Your task to perform on an android device: Clear the shopping cart on target. Add "usb-c" to the cart on target Image 0: 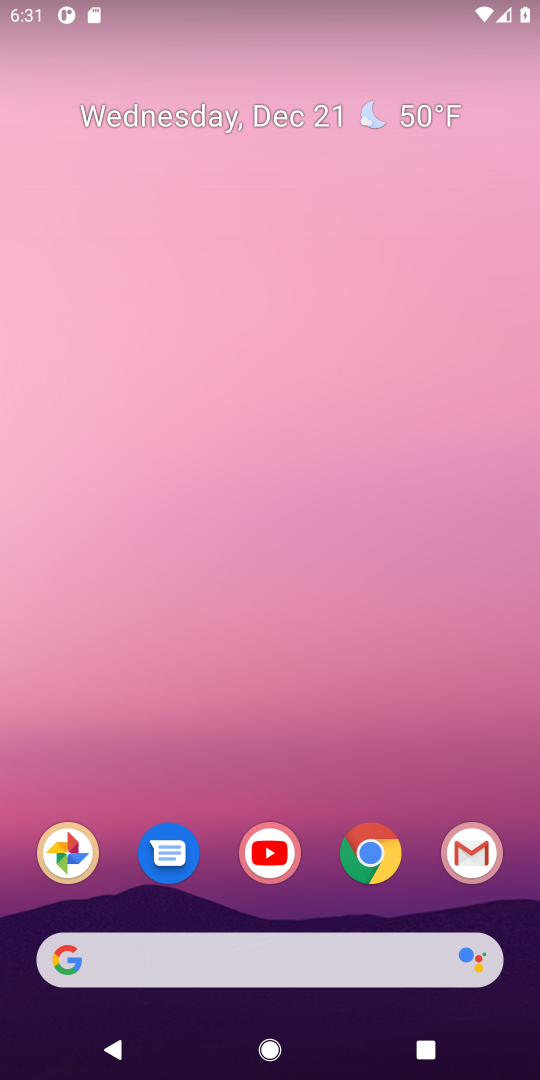
Step 0: click (369, 856)
Your task to perform on an android device: Clear the shopping cart on target. Add "usb-c" to the cart on target Image 1: 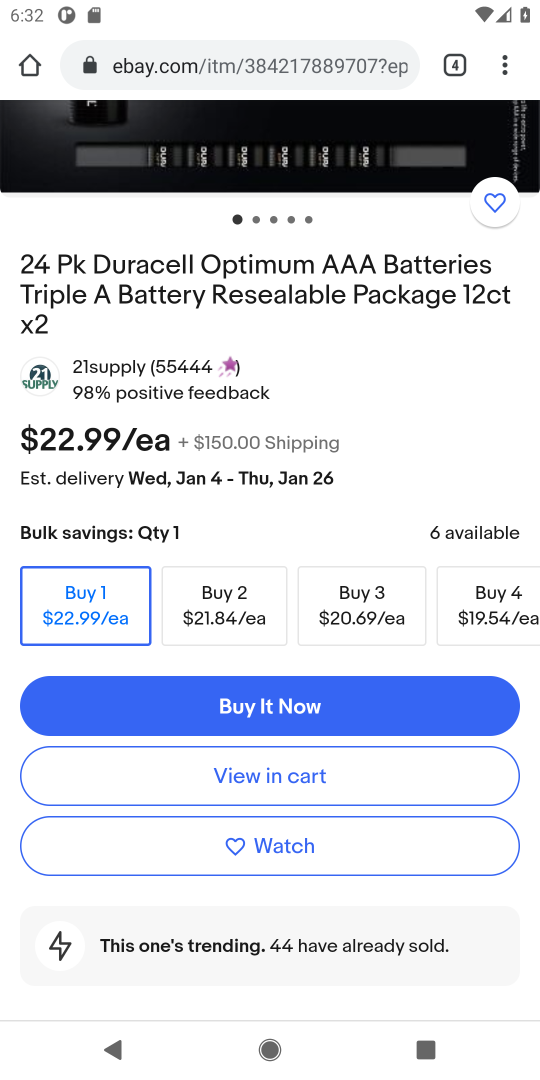
Step 1: click (457, 74)
Your task to perform on an android device: Clear the shopping cart on target. Add "usb-c" to the cart on target Image 2: 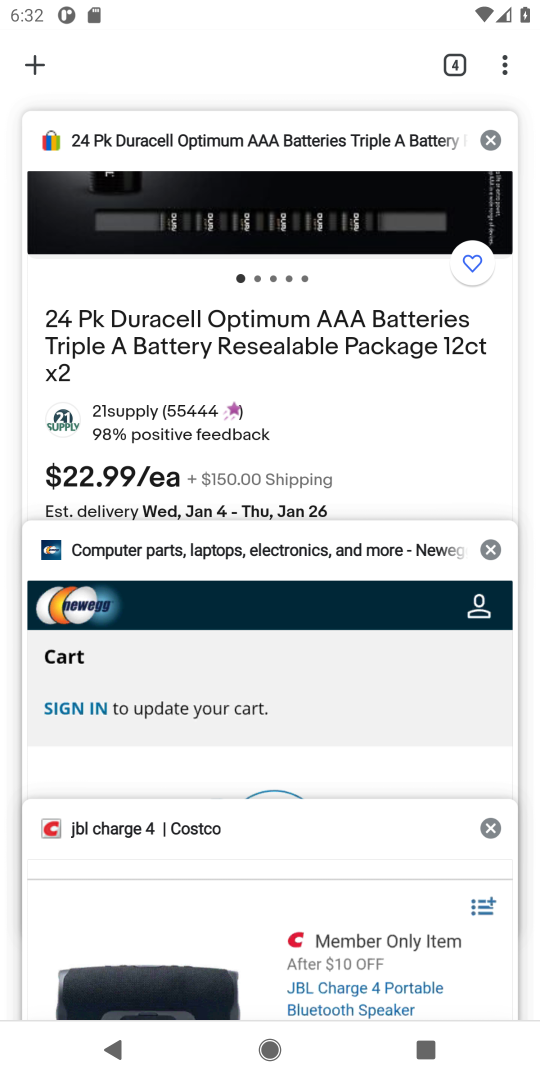
Step 2: click (30, 62)
Your task to perform on an android device: Clear the shopping cart on target. Add "usb-c" to the cart on target Image 3: 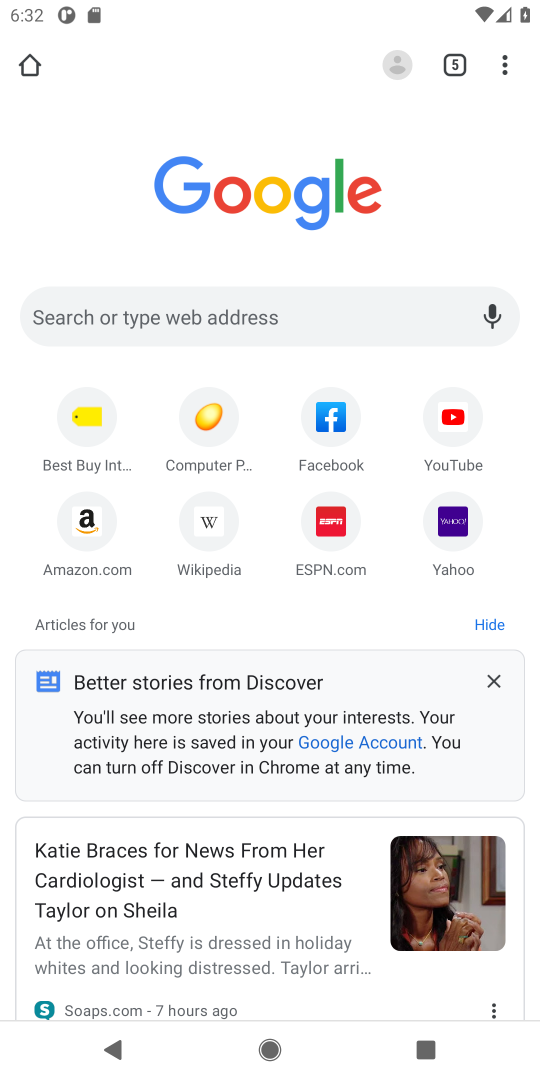
Step 3: click (125, 323)
Your task to perform on an android device: Clear the shopping cart on target. Add "usb-c" to the cart on target Image 4: 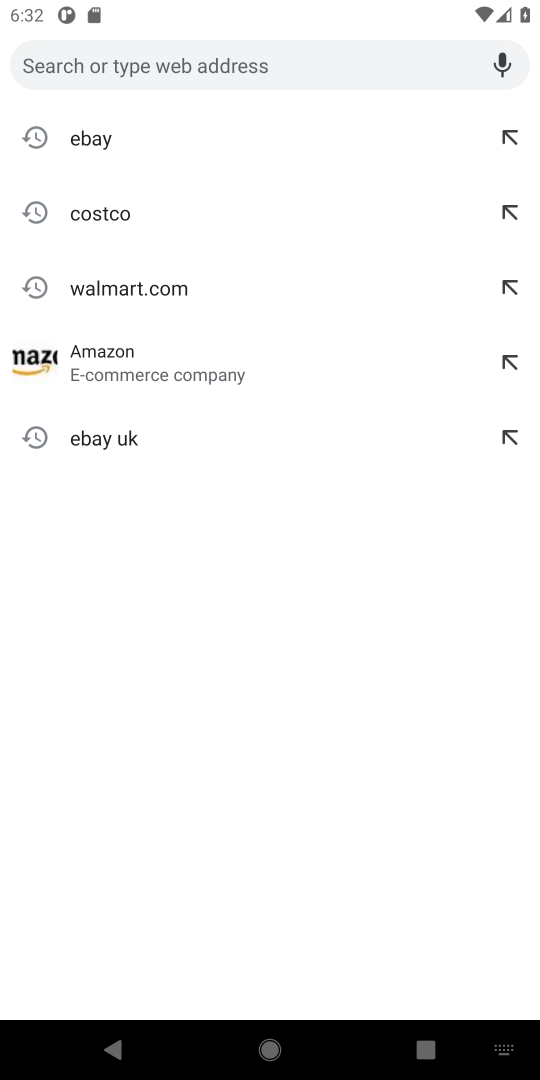
Step 4: type "target"
Your task to perform on an android device: Clear the shopping cart on target. Add "usb-c" to the cart on target Image 5: 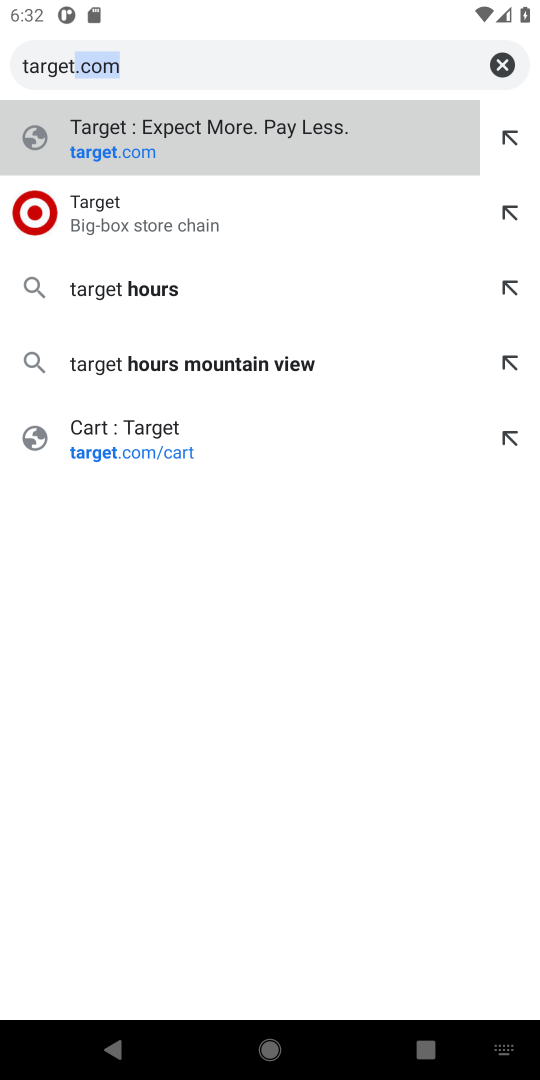
Step 5: click (85, 133)
Your task to perform on an android device: Clear the shopping cart on target. Add "usb-c" to the cart on target Image 6: 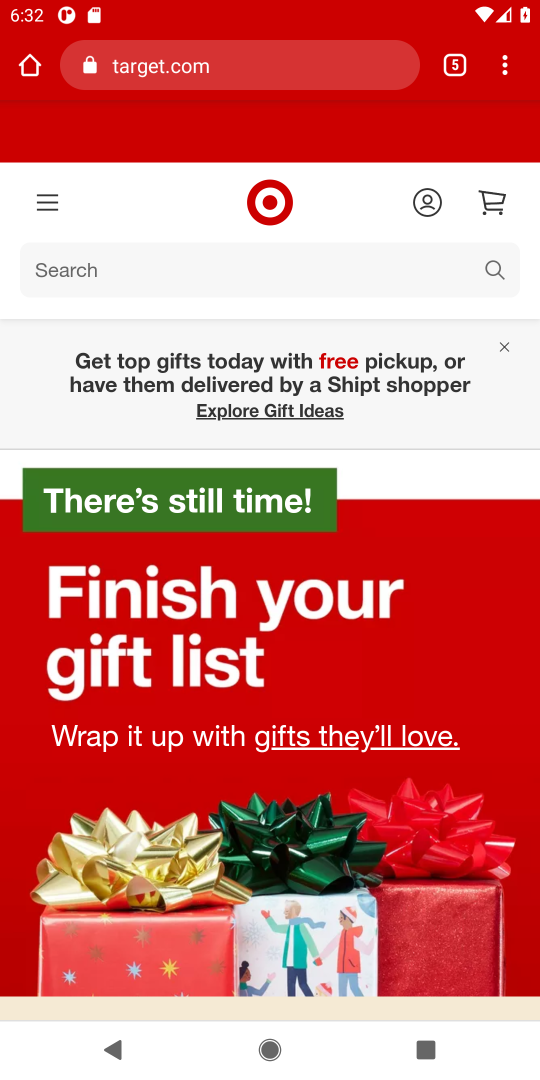
Step 6: click (90, 261)
Your task to perform on an android device: Clear the shopping cart on target. Add "usb-c" to the cart on target Image 7: 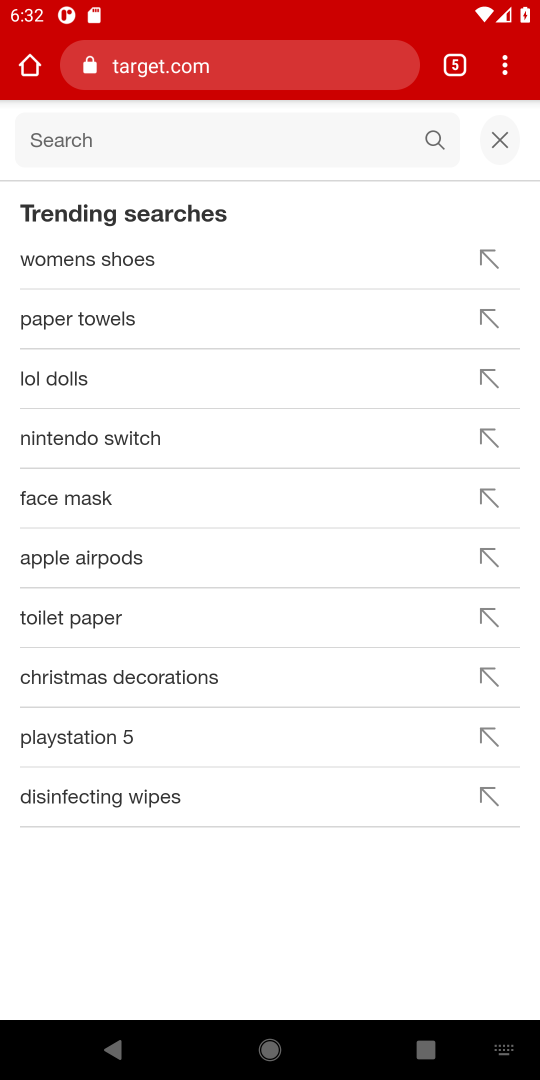
Step 7: type "usb-c"
Your task to perform on an android device: Clear the shopping cart on target. Add "usb-c" to the cart on target Image 8: 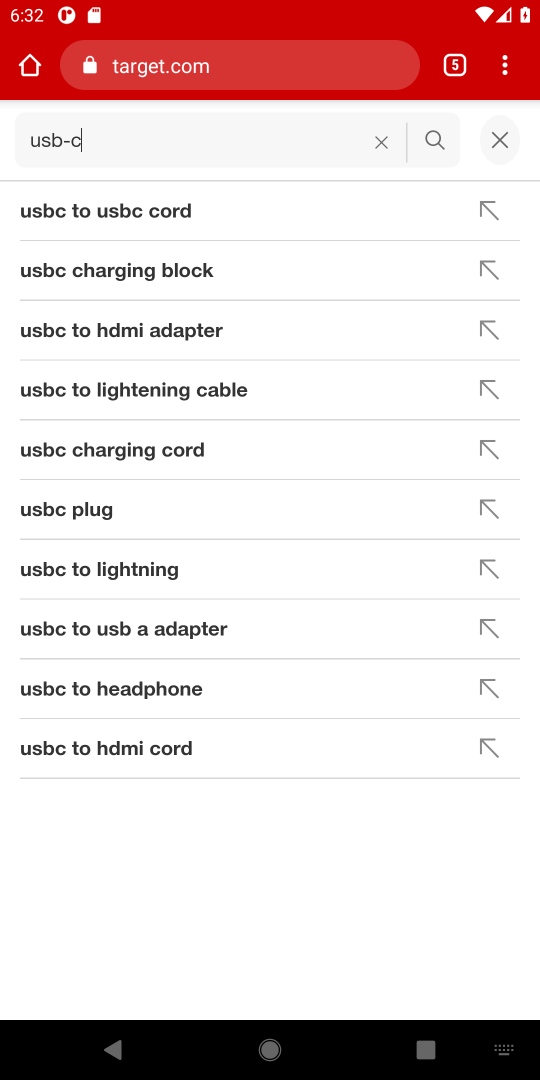
Step 8: click (436, 140)
Your task to perform on an android device: Clear the shopping cart on target. Add "usb-c" to the cart on target Image 9: 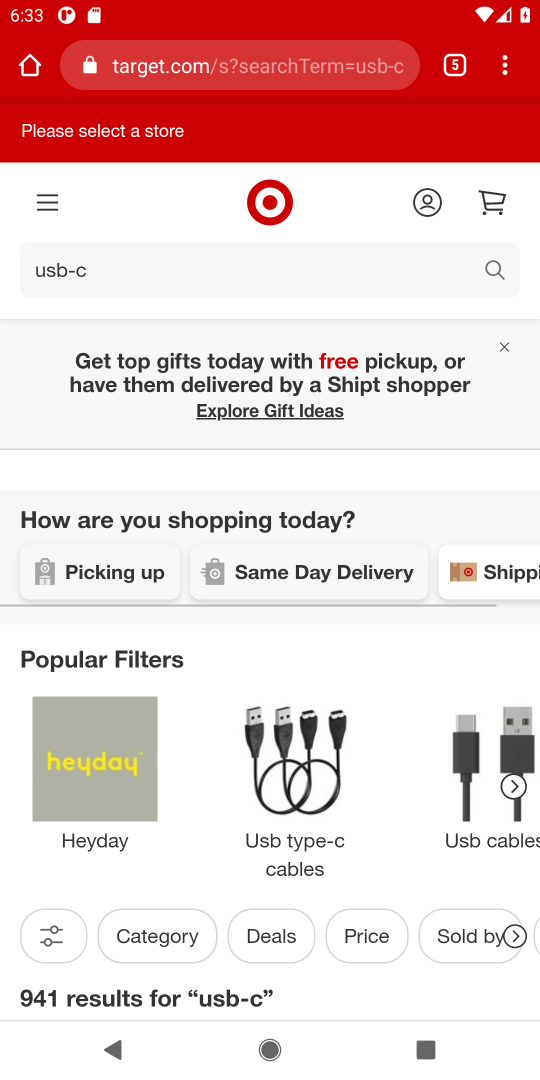
Step 9: drag from (185, 832) to (278, 431)
Your task to perform on an android device: Clear the shopping cart on target. Add "usb-c" to the cart on target Image 10: 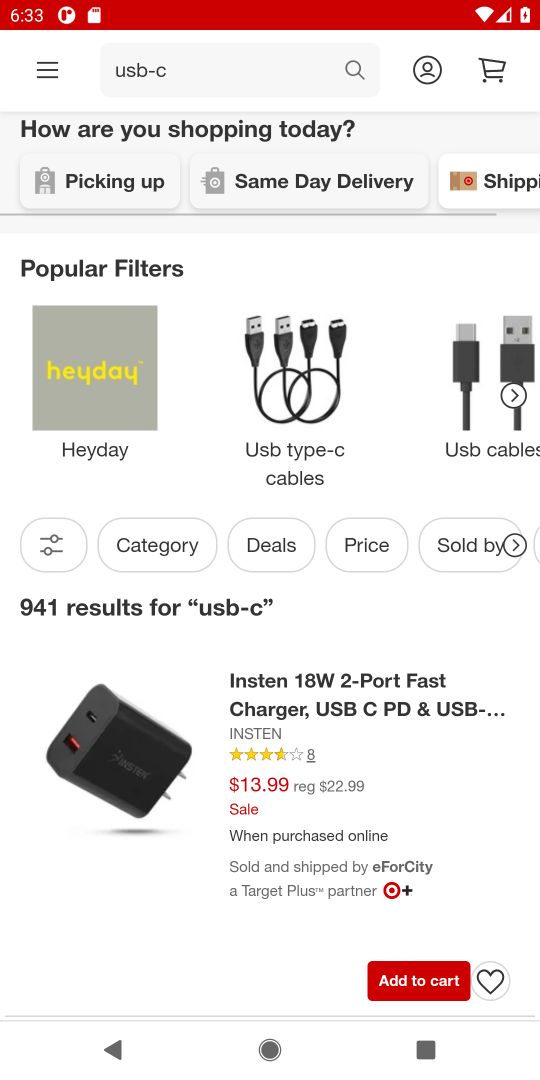
Step 10: click (399, 976)
Your task to perform on an android device: Clear the shopping cart on target. Add "usb-c" to the cart on target Image 11: 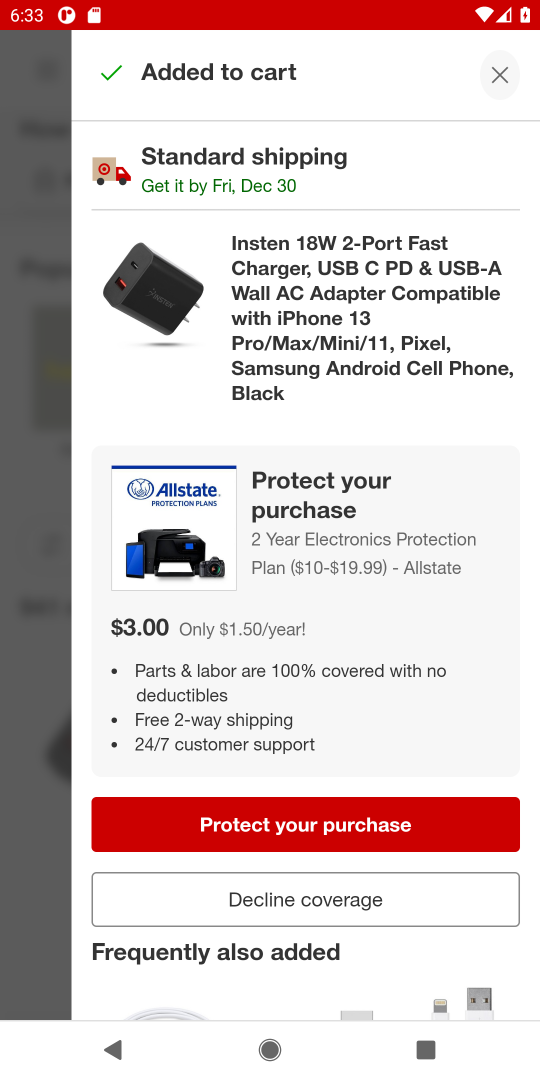
Step 11: click (282, 901)
Your task to perform on an android device: Clear the shopping cart on target. Add "usb-c" to the cart on target Image 12: 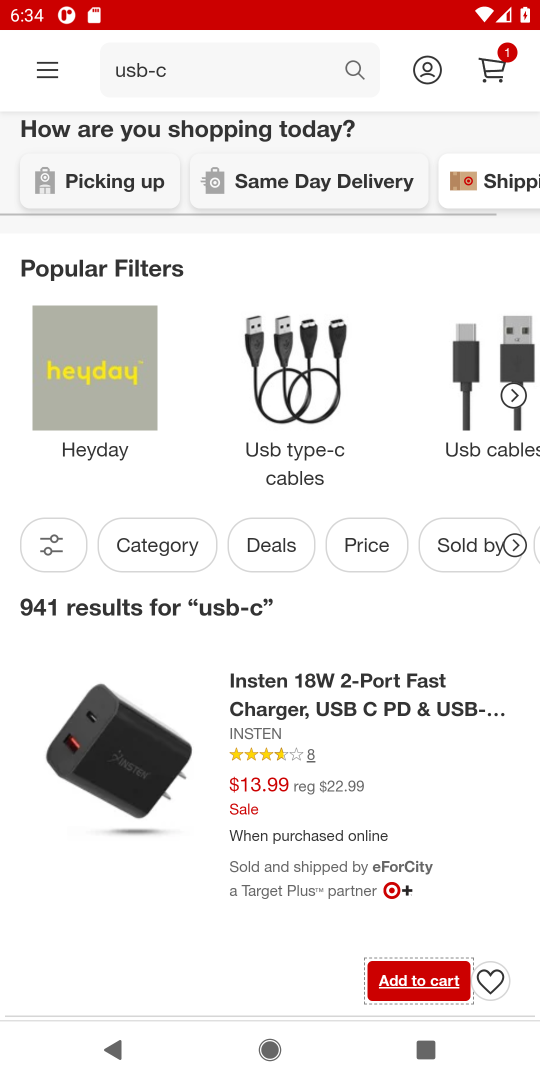
Step 12: task complete